Your task to perform on an android device: turn on improve location accuracy Image 0: 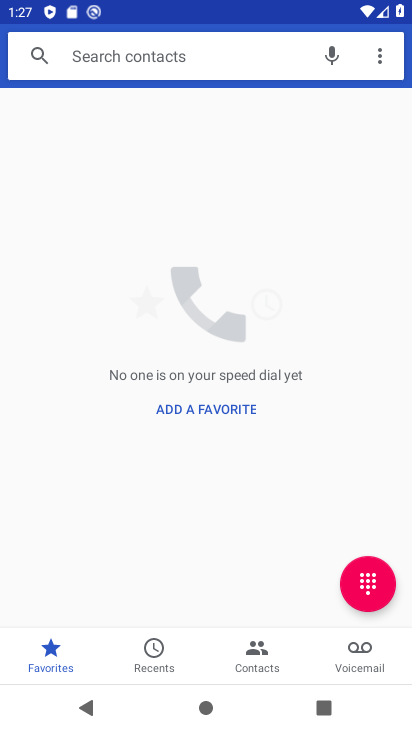
Step 0: press home button
Your task to perform on an android device: turn on improve location accuracy Image 1: 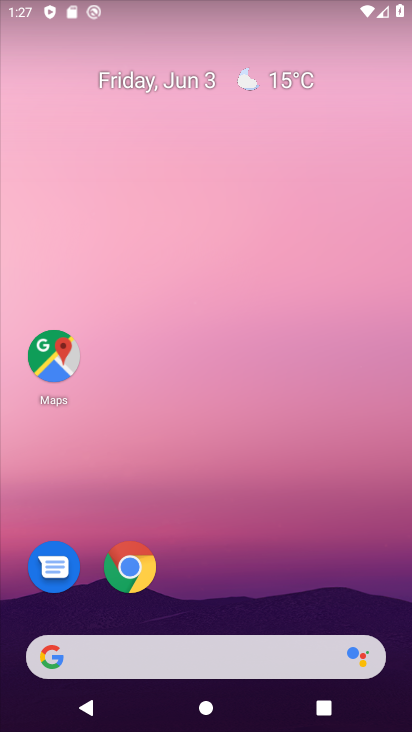
Step 1: drag from (278, 635) to (375, 41)
Your task to perform on an android device: turn on improve location accuracy Image 2: 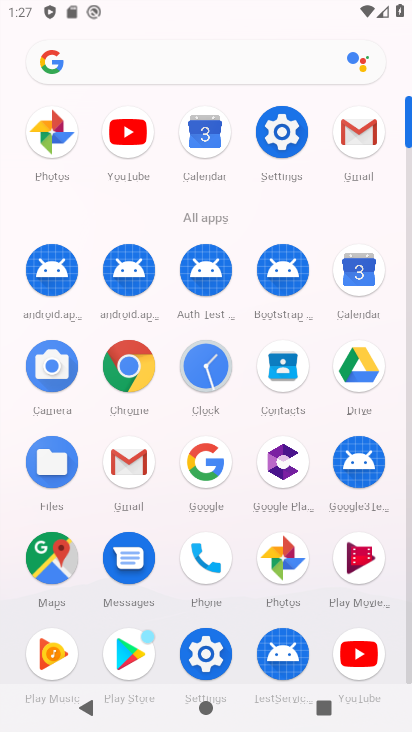
Step 2: click (290, 142)
Your task to perform on an android device: turn on improve location accuracy Image 3: 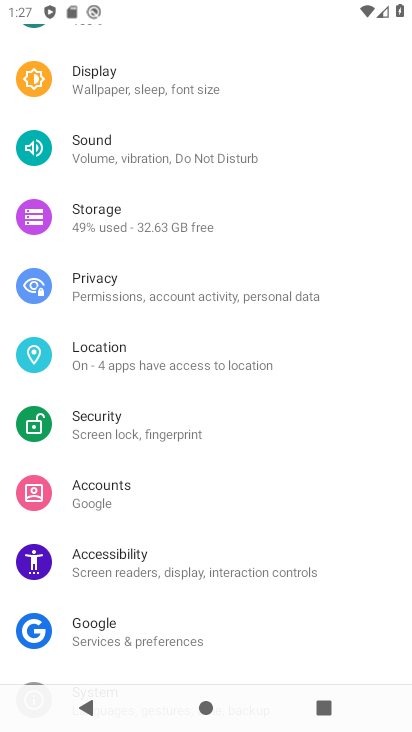
Step 3: click (172, 363)
Your task to perform on an android device: turn on improve location accuracy Image 4: 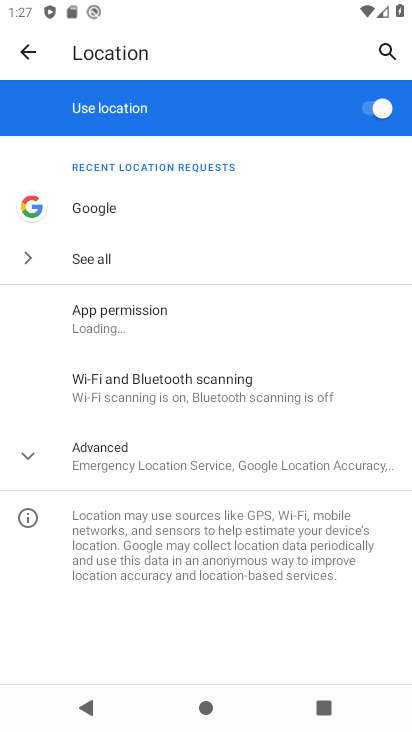
Step 4: click (155, 447)
Your task to perform on an android device: turn on improve location accuracy Image 5: 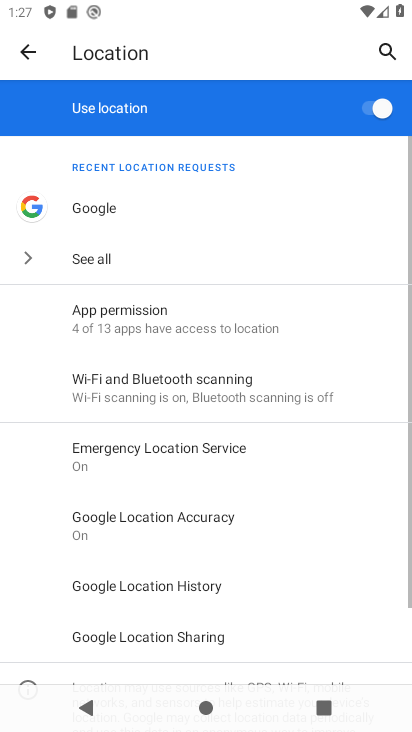
Step 5: click (174, 517)
Your task to perform on an android device: turn on improve location accuracy Image 6: 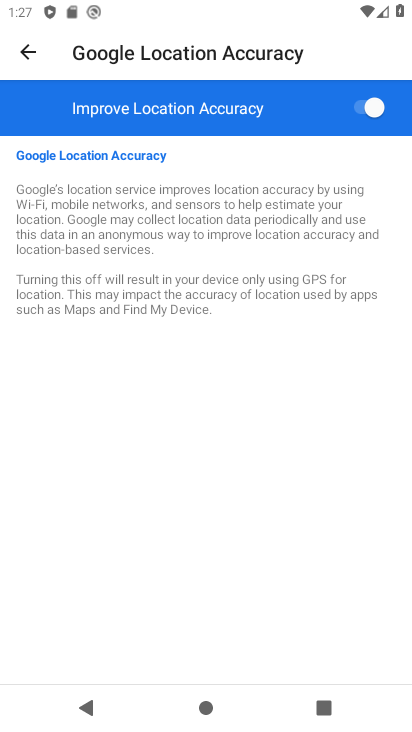
Step 6: task complete